Your task to perform on an android device: toggle location history Image 0: 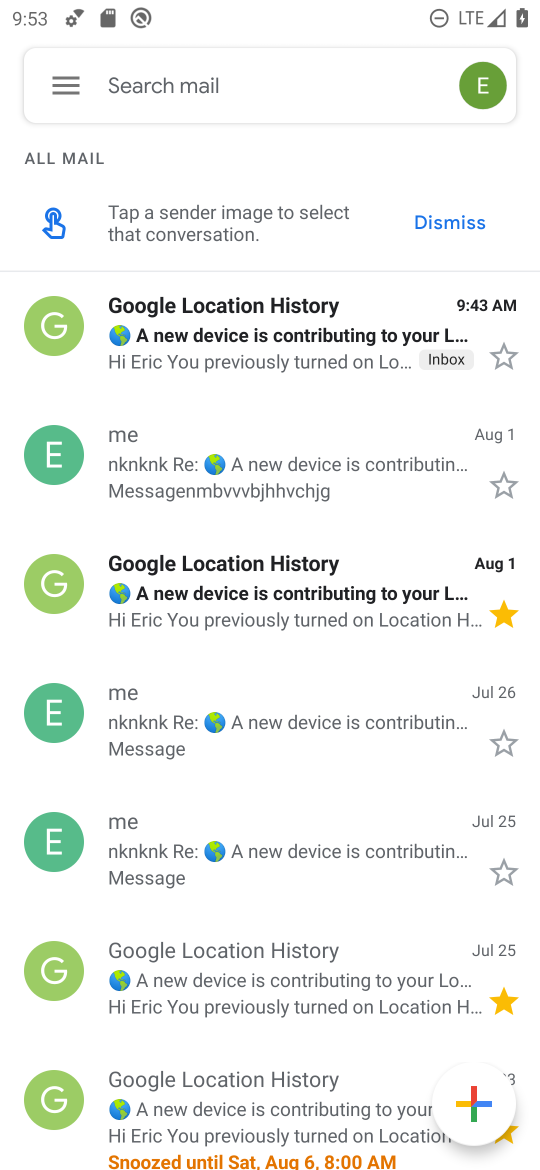
Step 0: press home button
Your task to perform on an android device: toggle location history Image 1: 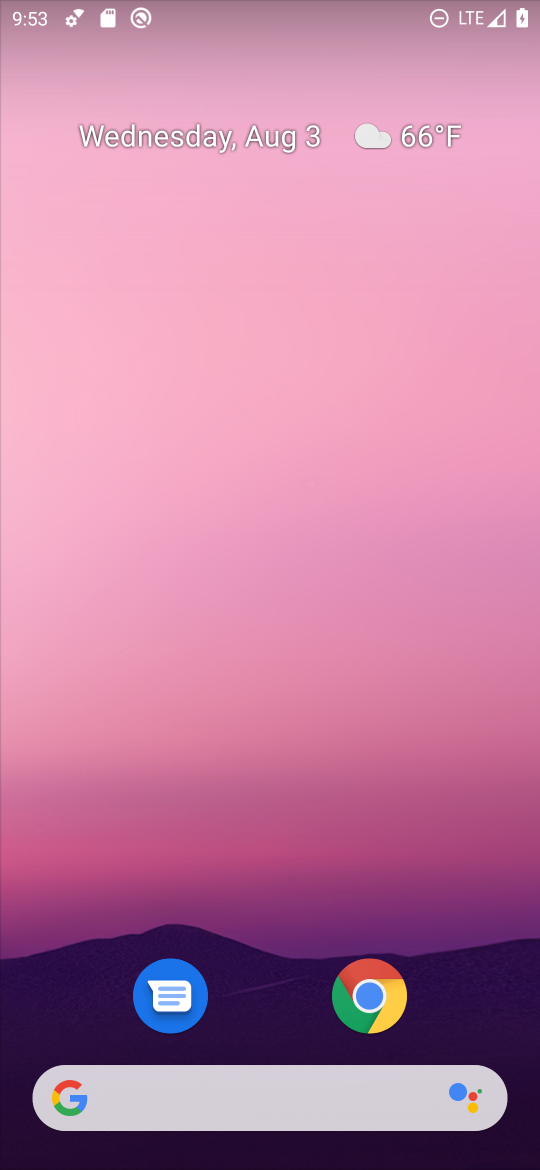
Step 1: drag from (307, 886) to (327, 0)
Your task to perform on an android device: toggle location history Image 2: 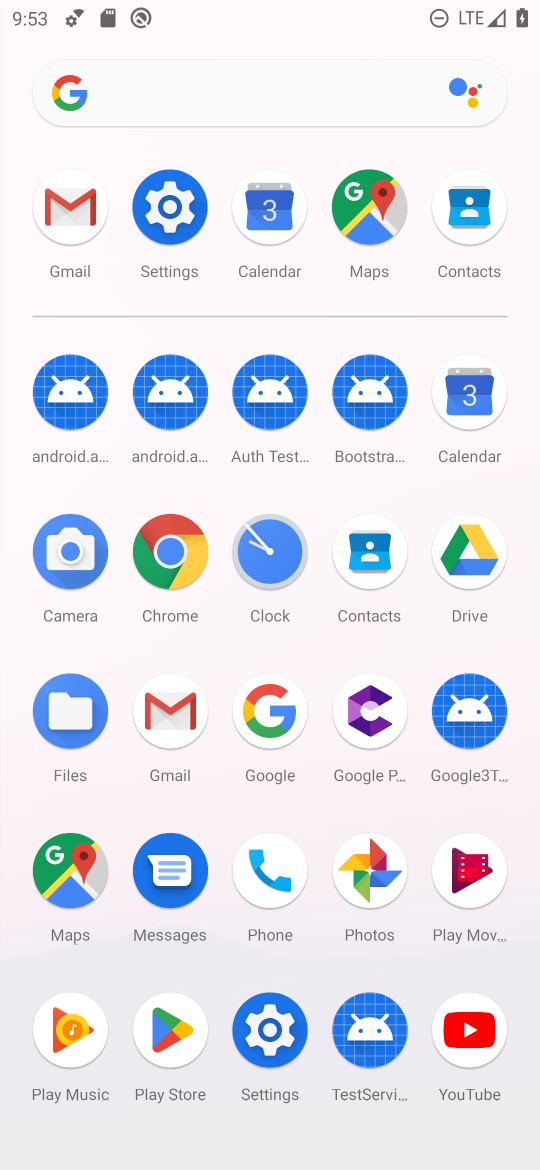
Step 2: click (177, 210)
Your task to perform on an android device: toggle location history Image 3: 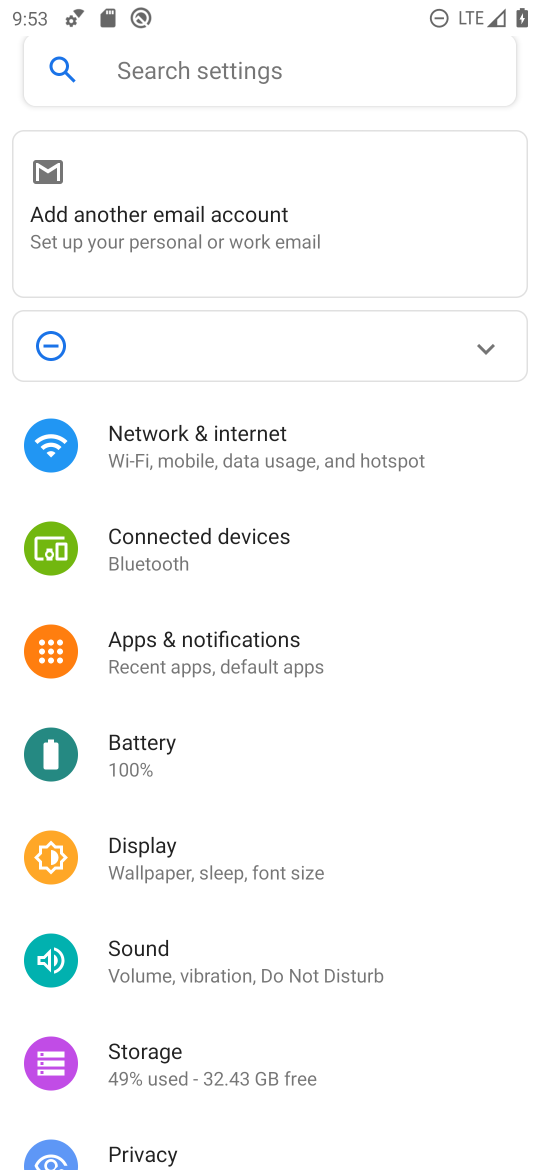
Step 3: drag from (346, 1021) to (297, 14)
Your task to perform on an android device: toggle location history Image 4: 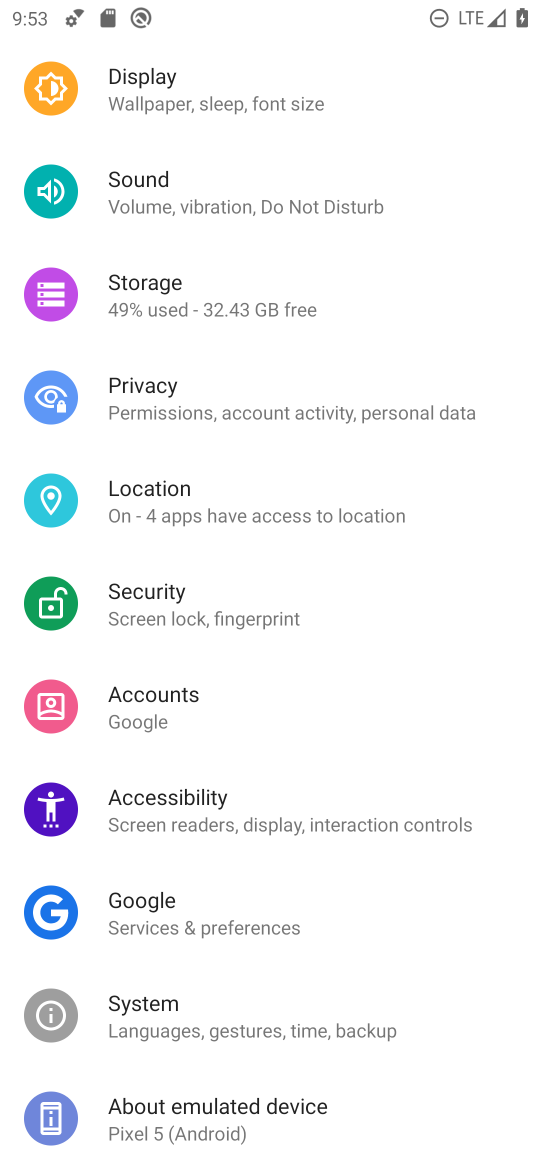
Step 4: click (227, 494)
Your task to perform on an android device: toggle location history Image 5: 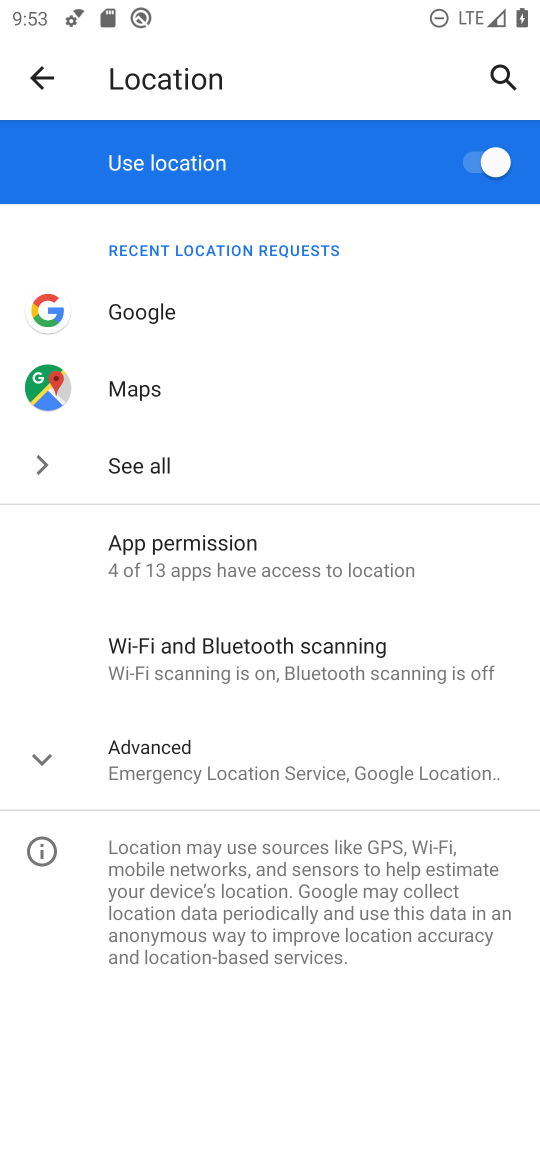
Step 5: click (32, 753)
Your task to perform on an android device: toggle location history Image 6: 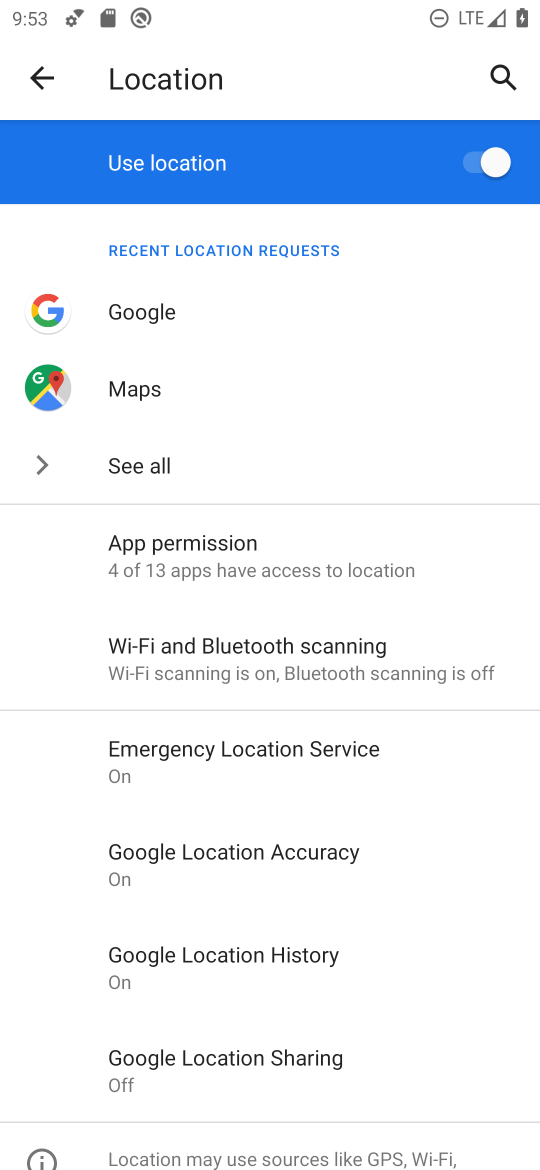
Step 6: click (207, 952)
Your task to perform on an android device: toggle location history Image 7: 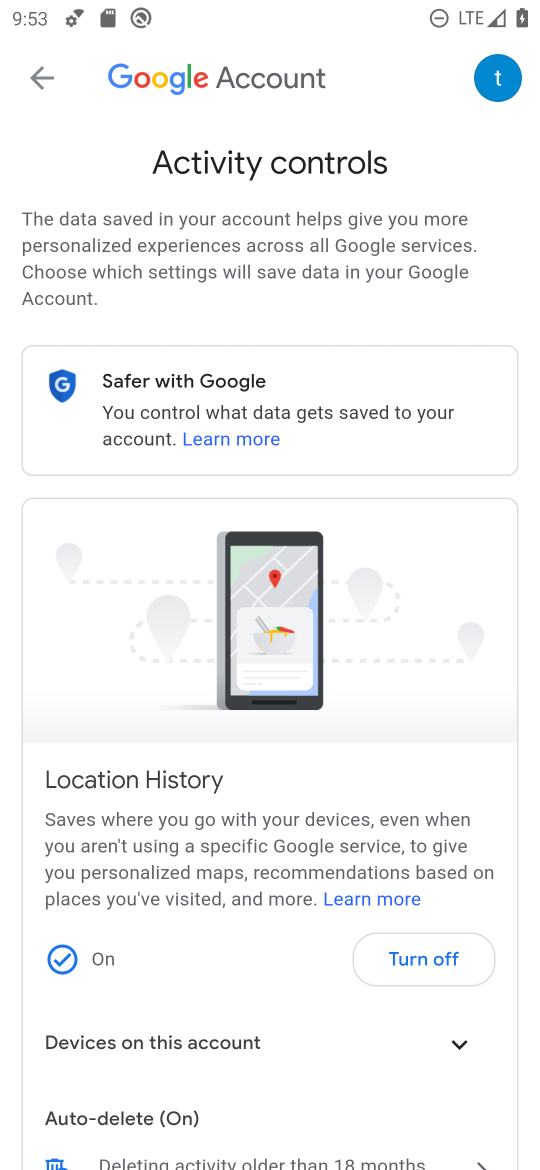
Step 7: click (414, 950)
Your task to perform on an android device: toggle location history Image 8: 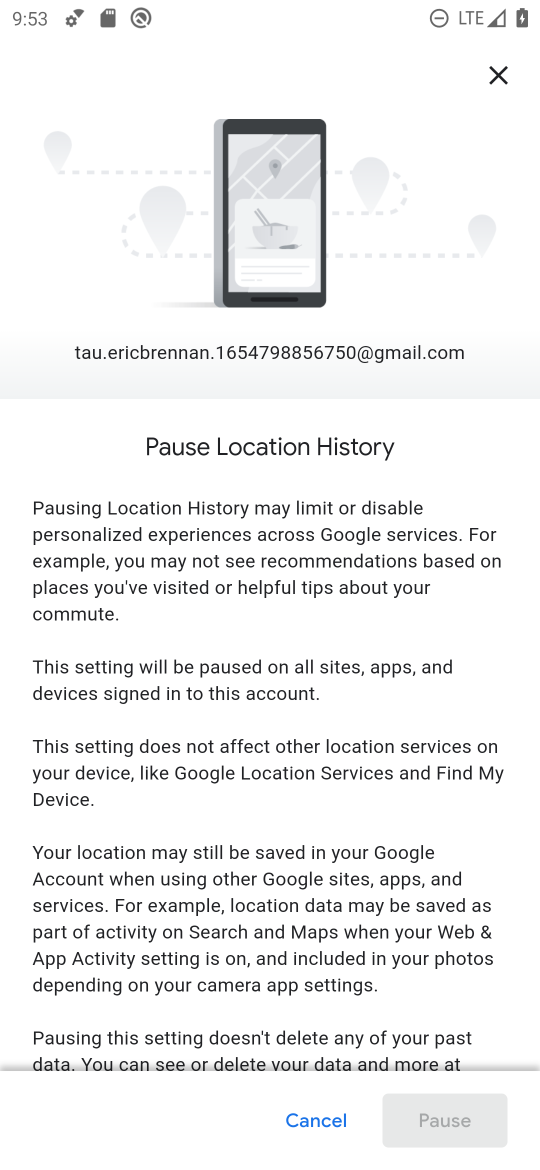
Step 8: drag from (424, 906) to (436, 234)
Your task to perform on an android device: toggle location history Image 9: 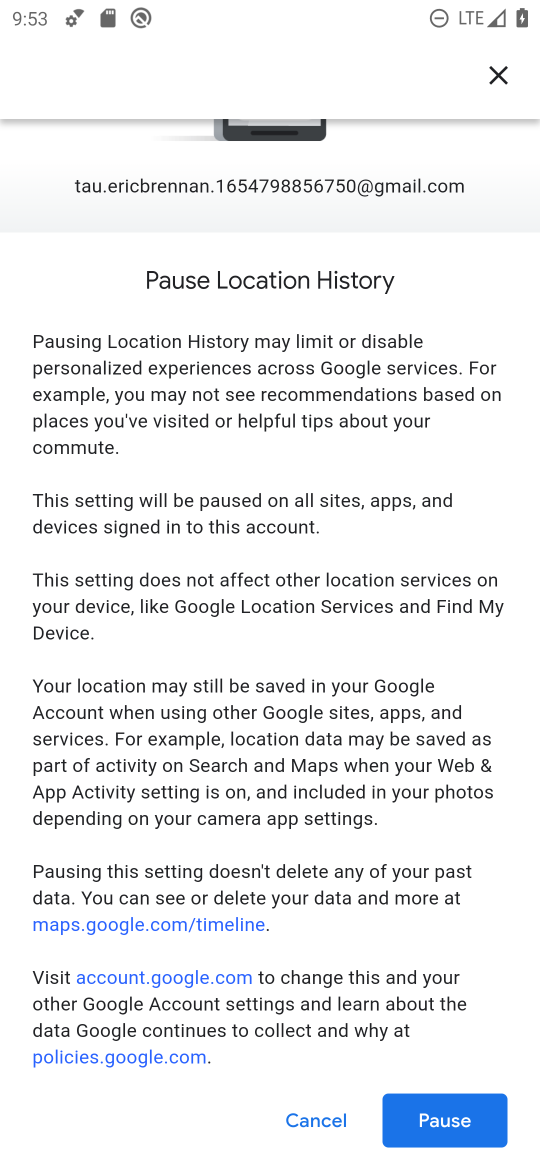
Step 9: click (447, 1130)
Your task to perform on an android device: toggle location history Image 10: 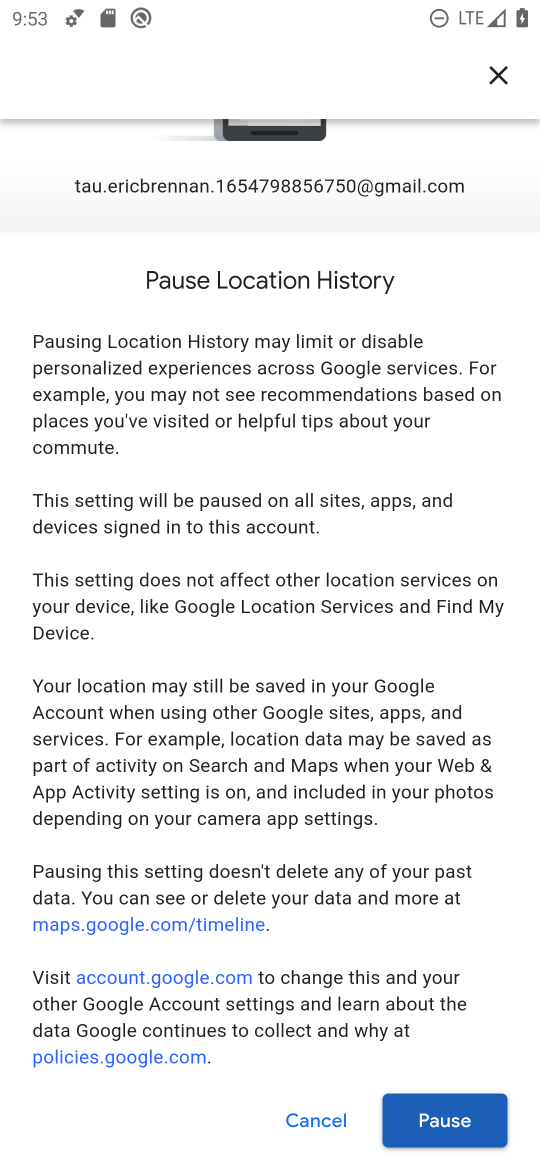
Step 10: click (482, 1125)
Your task to perform on an android device: toggle location history Image 11: 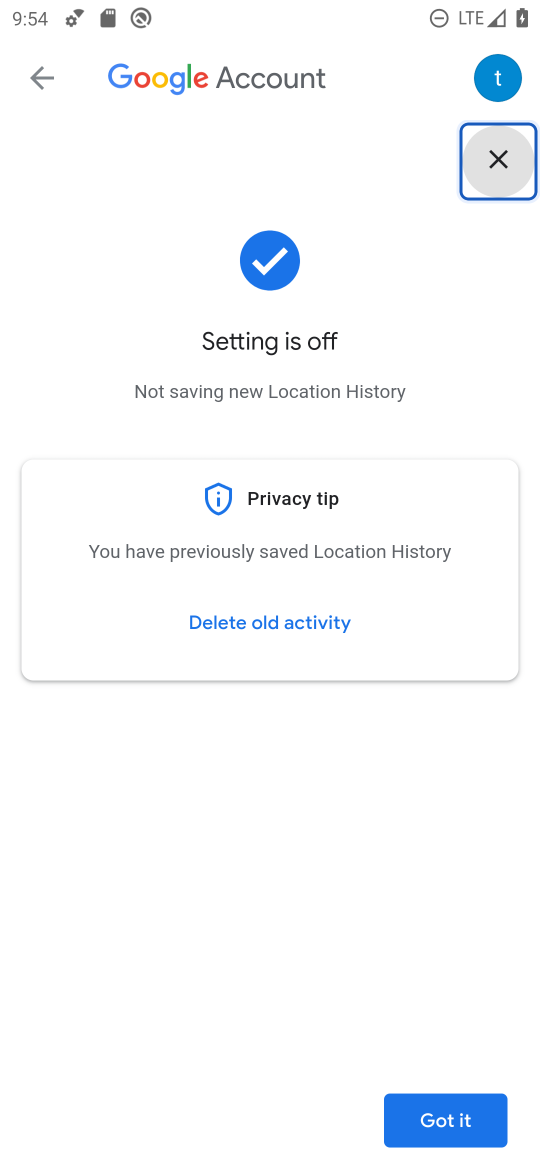
Step 11: click (463, 1121)
Your task to perform on an android device: toggle location history Image 12: 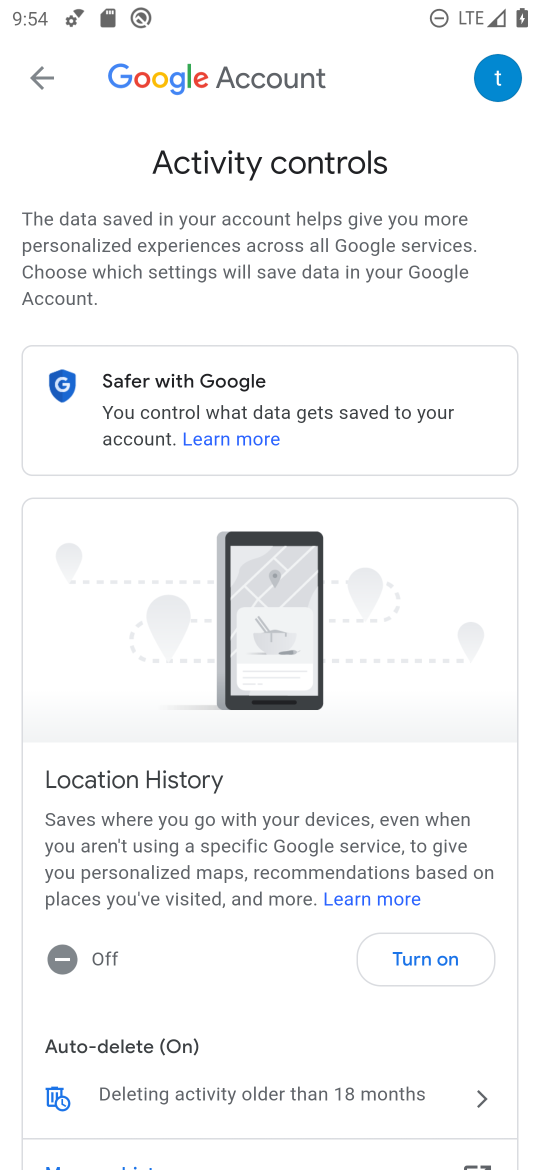
Step 12: task complete